Your task to perform on an android device: toggle data saver in the chrome app Image 0: 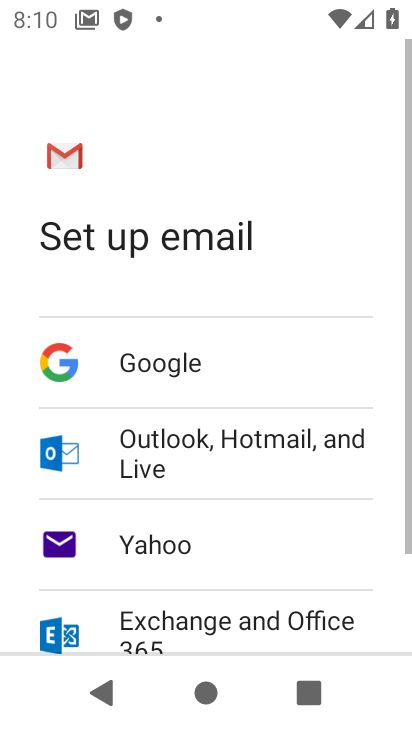
Step 0: press back button
Your task to perform on an android device: toggle data saver in the chrome app Image 1: 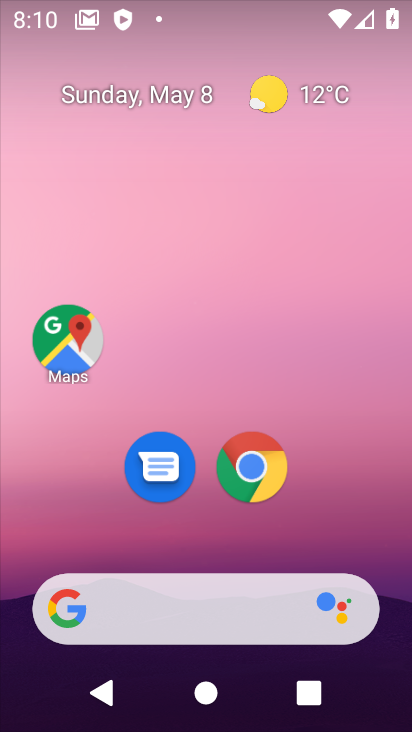
Step 1: click (242, 470)
Your task to perform on an android device: toggle data saver in the chrome app Image 2: 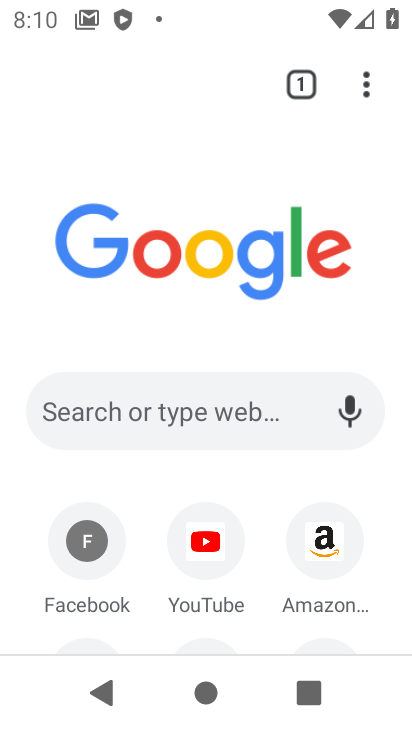
Step 2: drag from (364, 77) to (116, 510)
Your task to perform on an android device: toggle data saver in the chrome app Image 3: 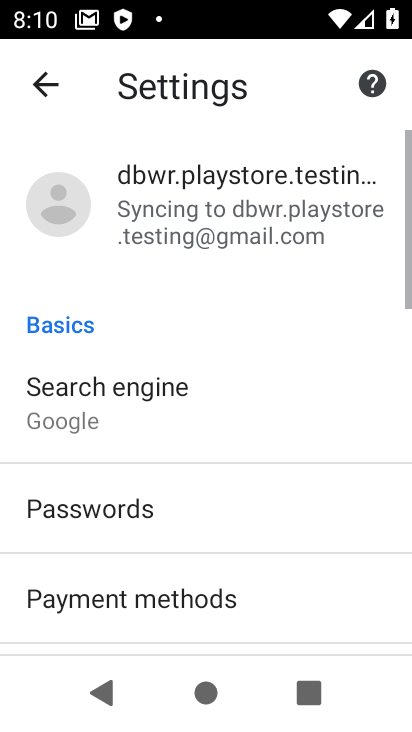
Step 3: drag from (133, 570) to (242, 143)
Your task to perform on an android device: toggle data saver in the chrome app Image 4: 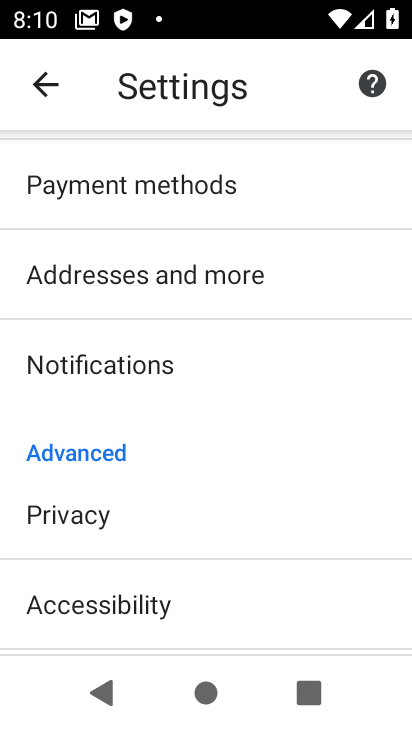
Step 4: drag from (141, 568) to (208, 182)
Your task to perform on an android device: toggle data saver in the chrome app Image 5: 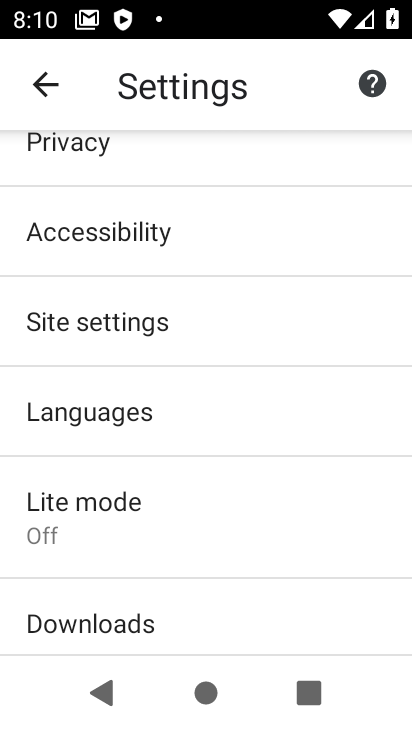
Step 5: click (121, 507)
Your task to perform on an android device: toggle data saver in the chrome app Image 6: 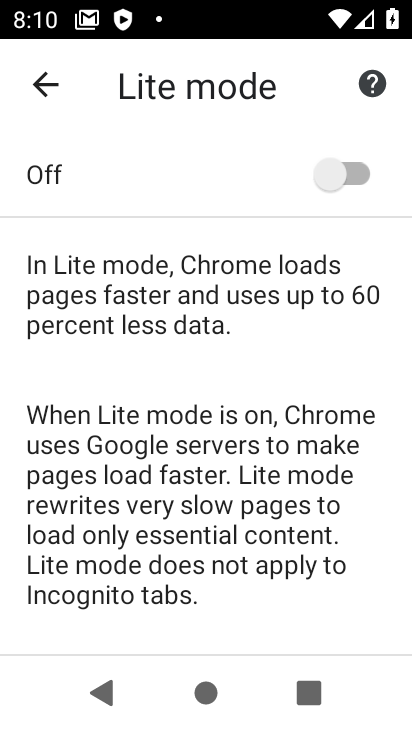
Step 6: click (353, 162)
Your task to perform on an android device: toggle data saver in the chrome app Image 7: 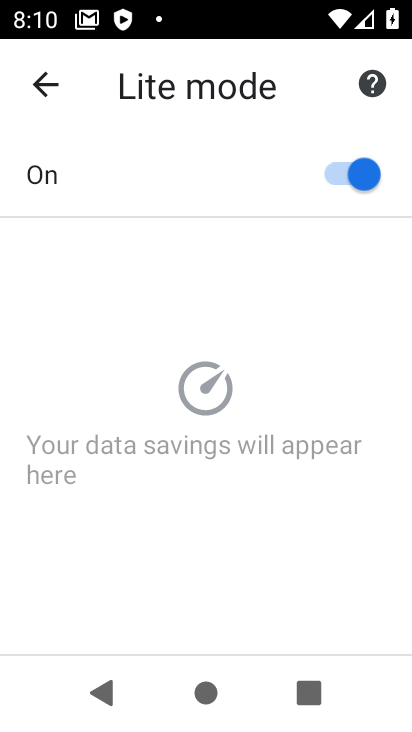
Step 7: task complete